Your task to perform on an android device: open wifi settings Image 0: 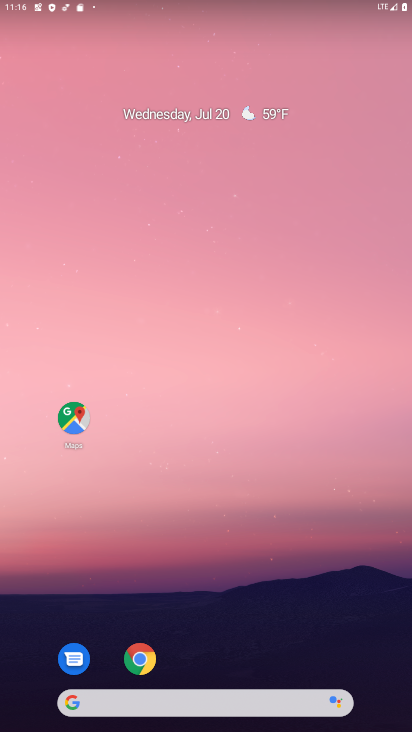
Step 0: drag from (218, 729) to (212, 201)
Your task to perform on an android device: open wifi settings Image 1: 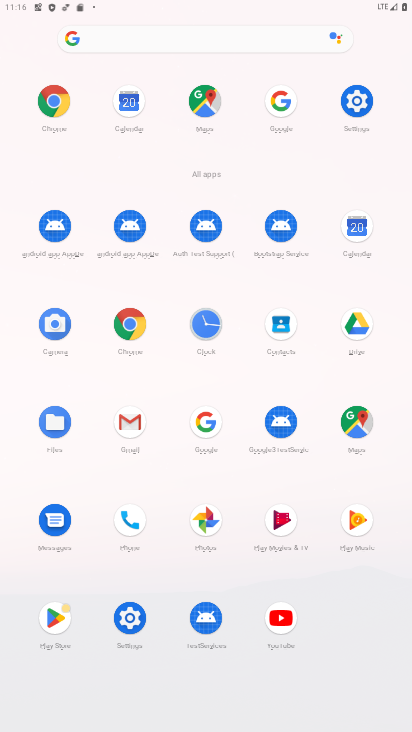
Step 1: click (366, 98)
Your task to perform on an android device: open wifi settings Image 2: 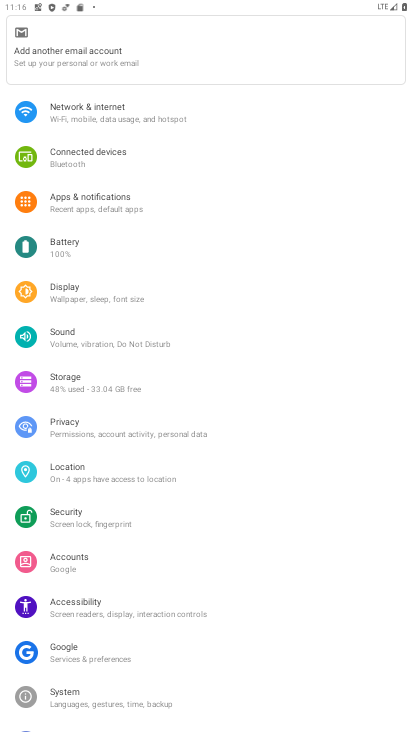
Step 2: click (74, 119)
Your task to perform on an android device: open wifi settings Image 3: 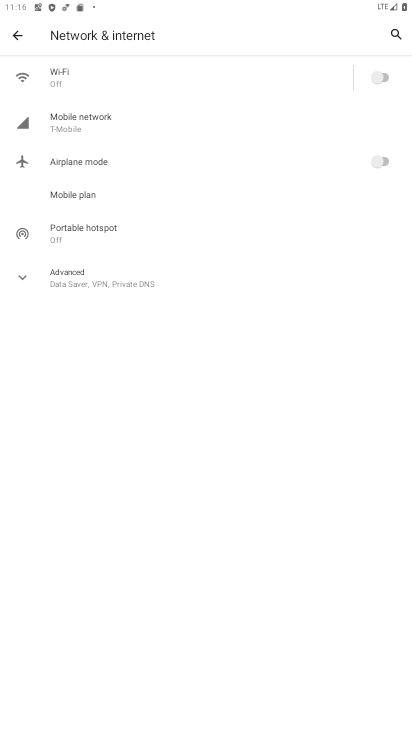
Step 3: click (55, 74)
Your task to perform on an android device: open wifi settings Image 4: 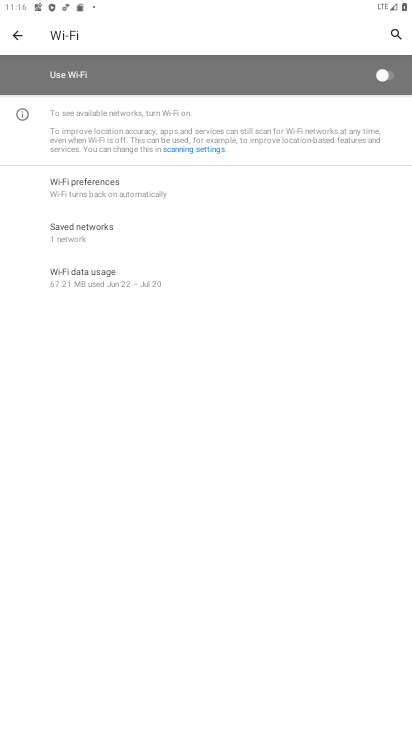
Step 4: task complete